Your task to perform on an android device: open app "Life360: Find Family & Friends" Image 0: 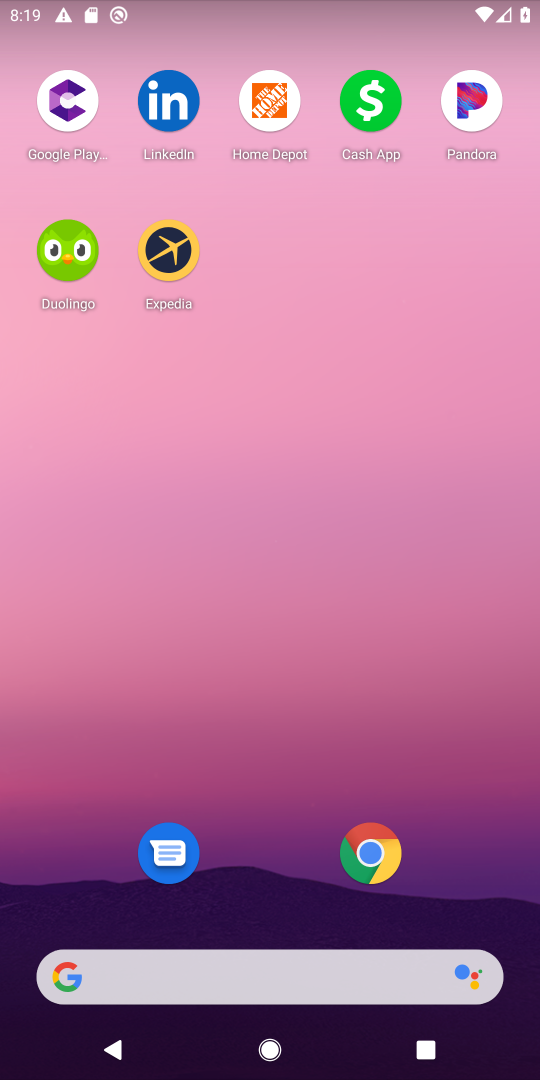
Step 0: drag from (314, 605) to (414, 172)
Your task to perform on an android device: open app "Life360: Find Family & Friends" Image 1: 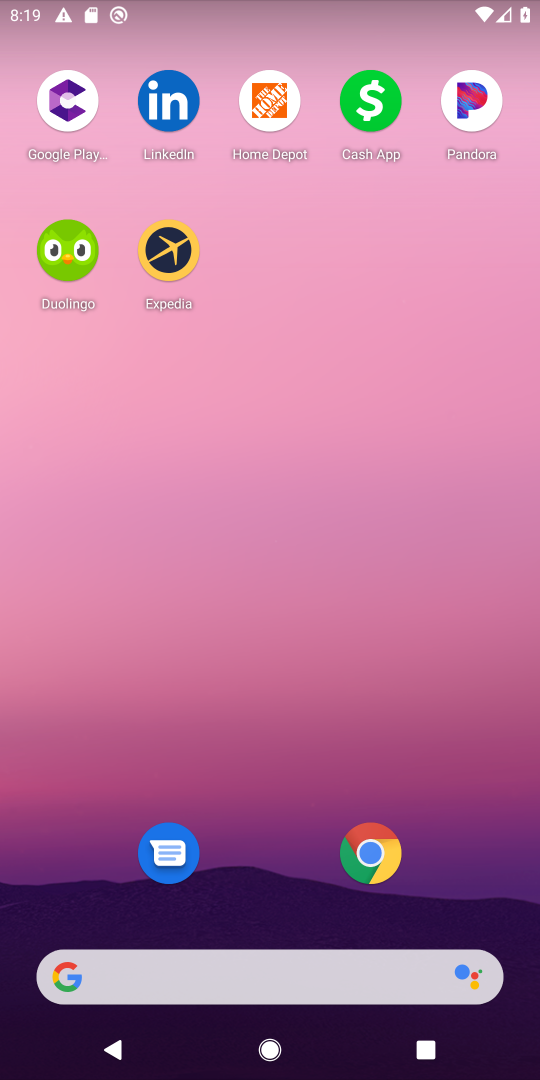
Step 1: drag from (245, 821) to (351, 182)
Your task to perform on an android device: open app "Life360: Find Family & Friends" Image 2: 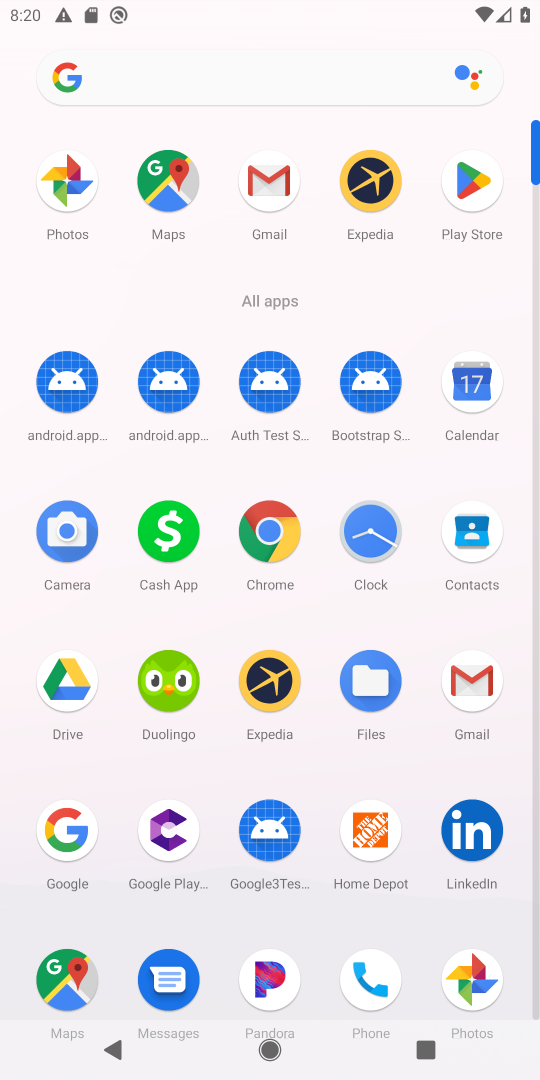
Step 2: click (472, 159)
Your task to perform on an android device: open app "Life360: Find Family & Friends" Image 3: 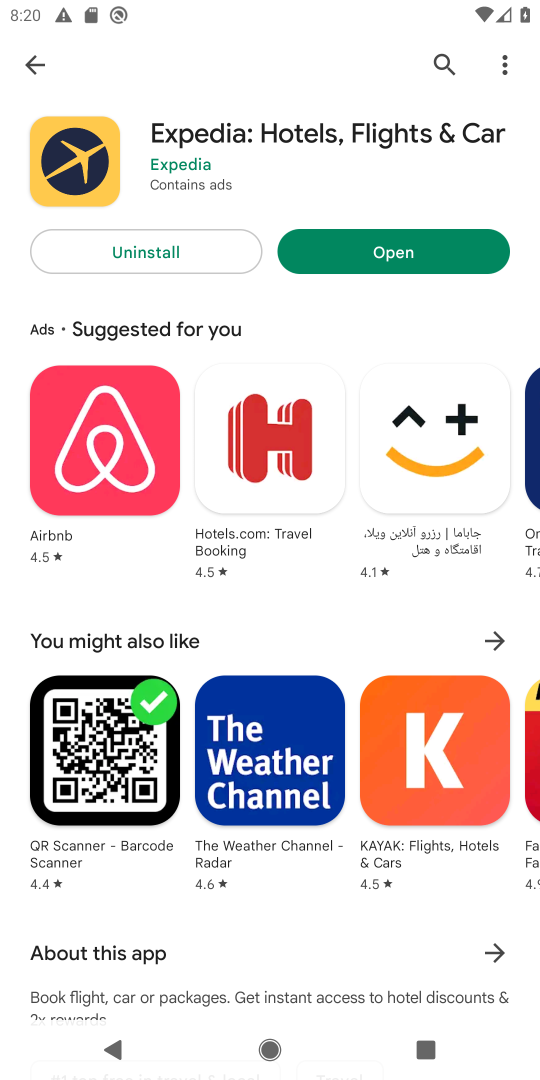
Step 3: click (449, 54)
Your task to perform on an android device: open app "Life360: Find Family & Friends" Image 4: 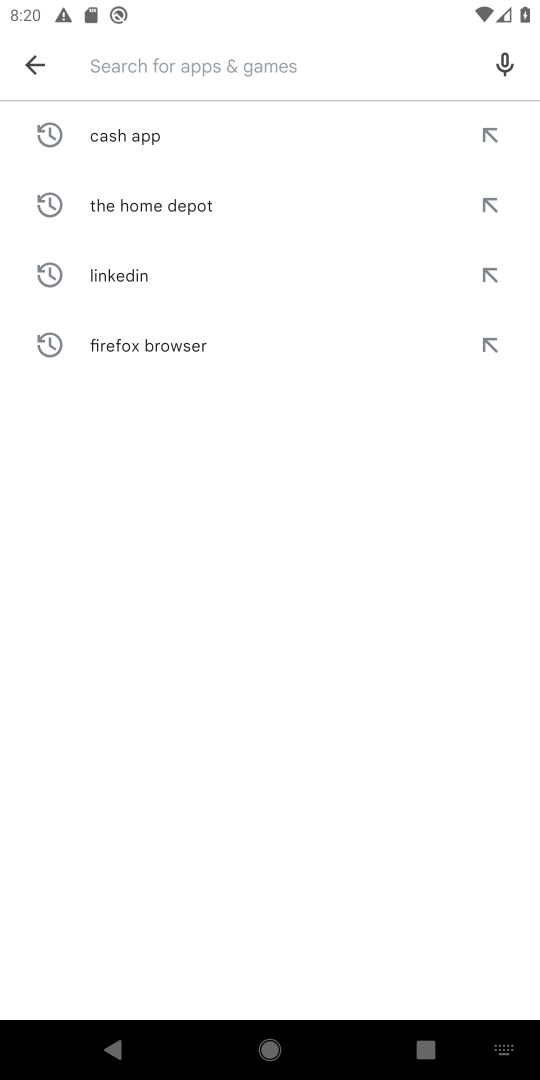
Step 4: type "Life360: Find Family & Friends"
Your task to perform on an android device: open app "Life360: Find Family & Friends" Image 5: 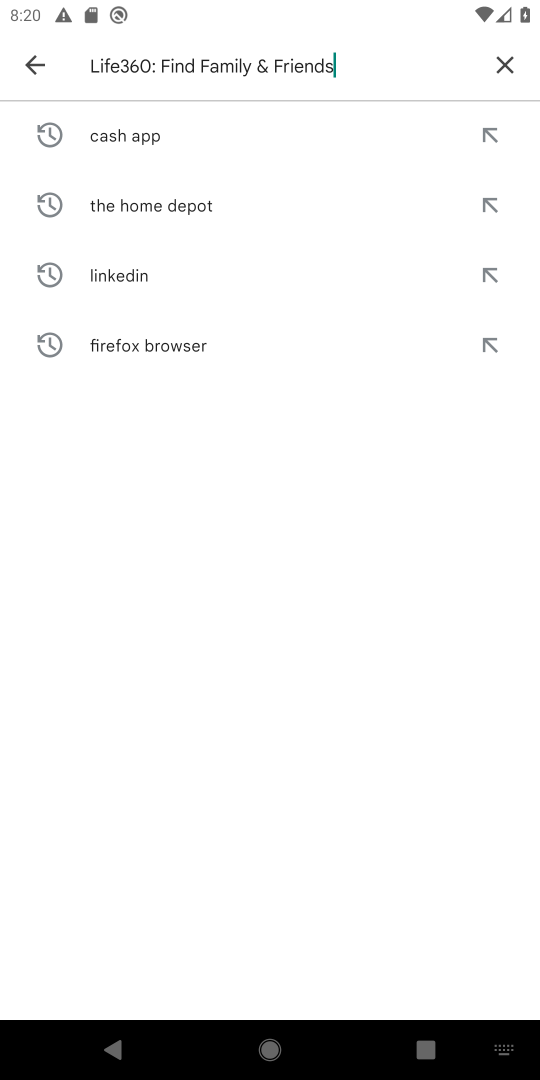
Step 5: type ""
Your task to perform on an android device: open app "Life360: Find Family & Friends" Image 6: 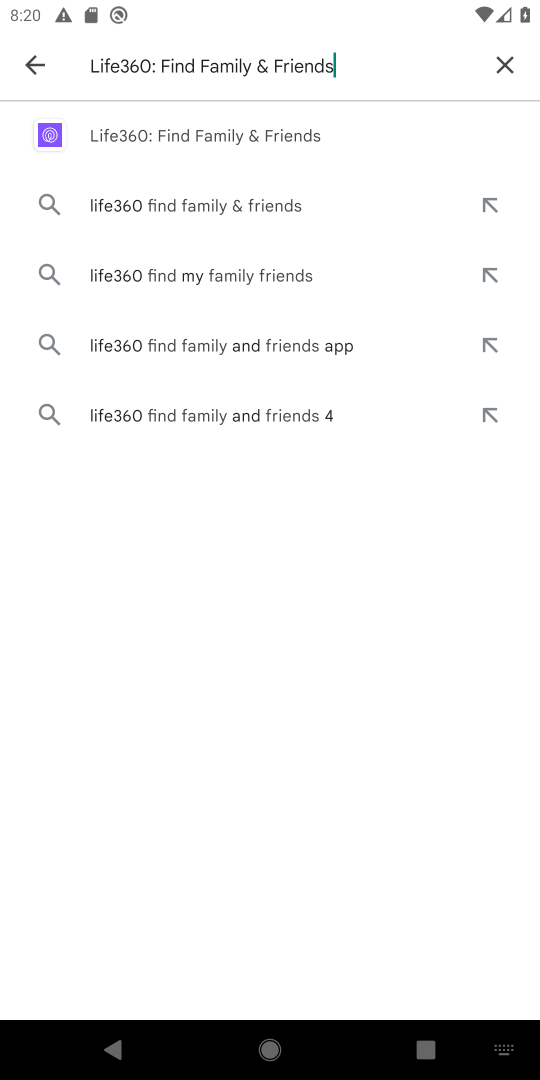
Step 6: click (168, 141)
Your task to perform on an android device: open app "Life360: Find Family & Friends" Image 7: 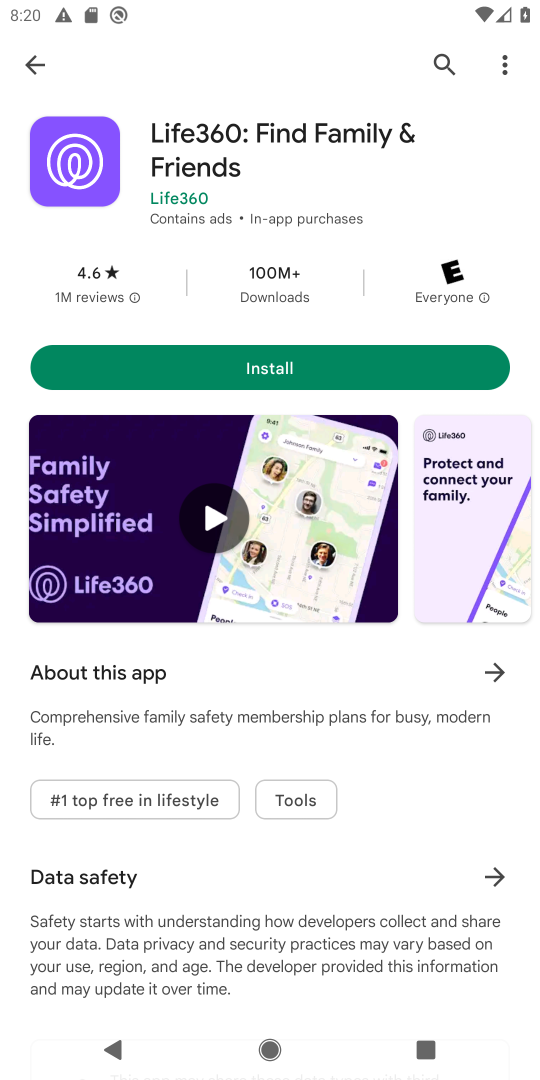
Step 7: task complete